Your task to perform on an android device: Open the calendar and show me this week's events? Image 0: 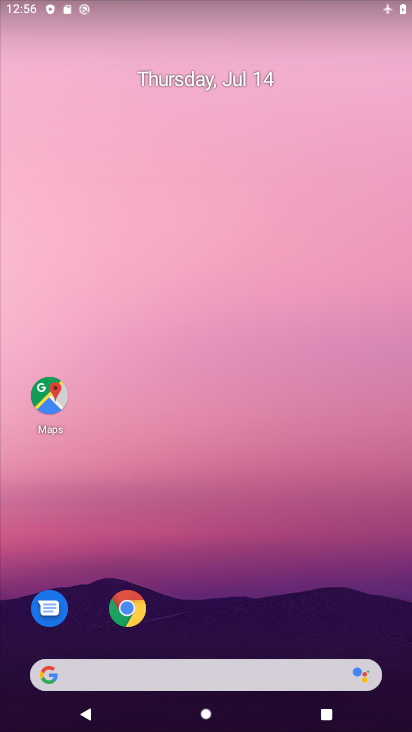
Step 0: drag from (196, 611) to (216, 313)
Your task to perform on an android device: Open the calendar and show me this week's events? Image 1: 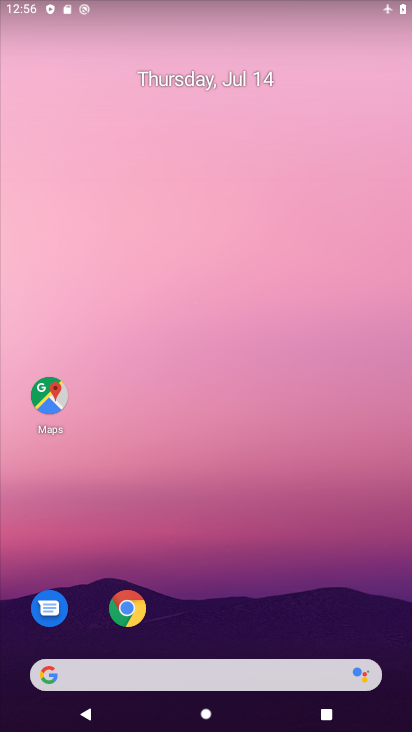
Step 1: drag from (230, 653) to (269, 184)
Your task to perform on an android device: Open the calendar and show me this week's events? Image 2: 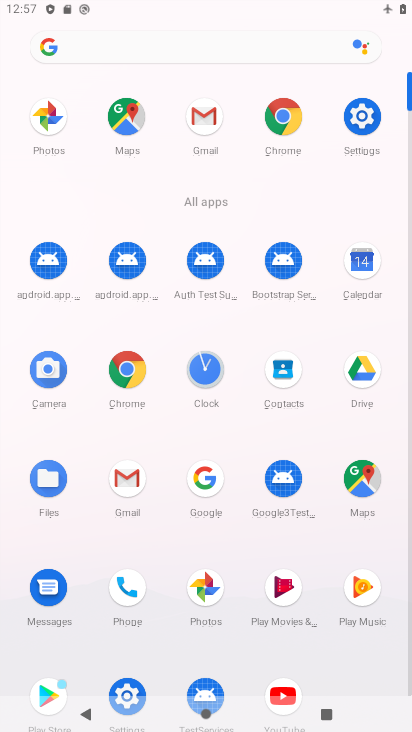
Step 2: click (362, 259)
Your task to perform on an android device: Open the calendar and show me this week's events? Image 3: 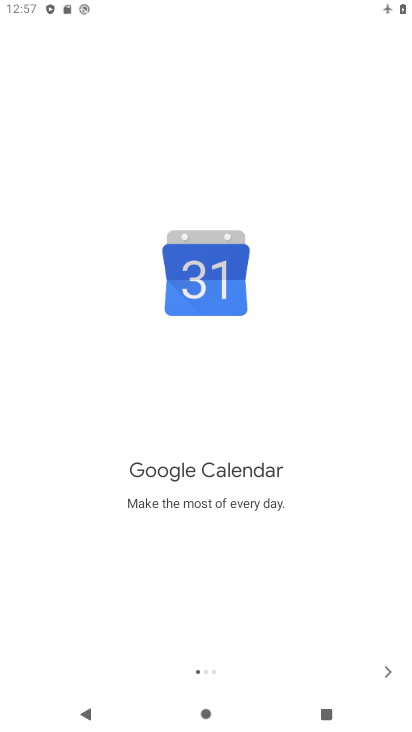
Step 3: click (376, 678)
Your task to perform on an android device: Open the calendar and show me this week's events? Image 4: 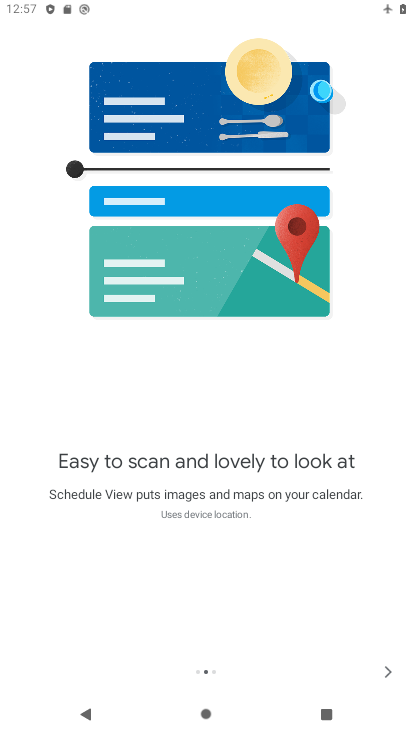
Step 4: click (377, 676)
Your task to perform on an android device: Open the calendar and show me this week's events? Image 5: 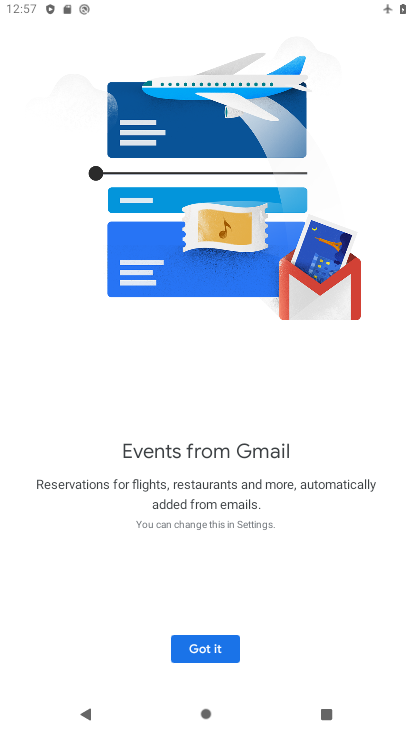
Step 5: click (216, 656)
Your task to perform on an android device: Open the calendar and show me this week's events? Image 6: 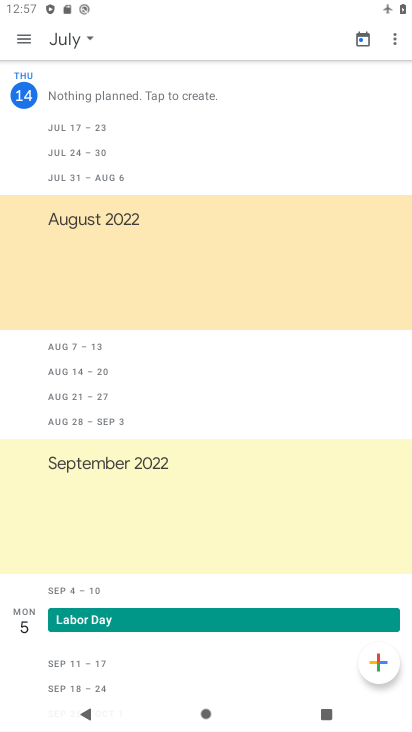
Step 6: click (70, 42)
Your task to perform on an android device: Open the calendar and show me this week's events? Image 7: 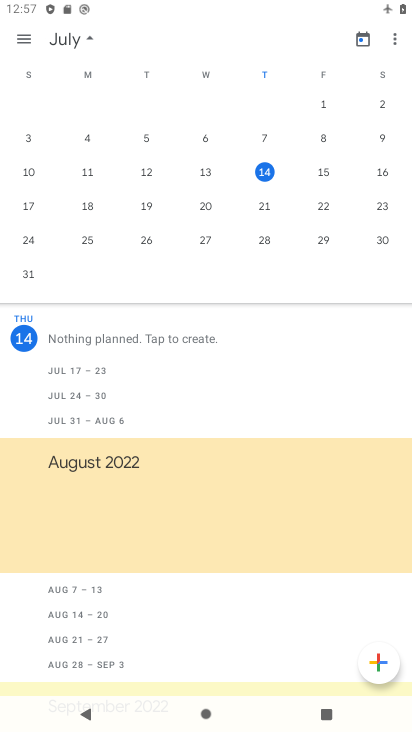
Step 7: click (315, 168)
Your task to perform on an android device: Open the calendar and show me this week's events? Image 8: 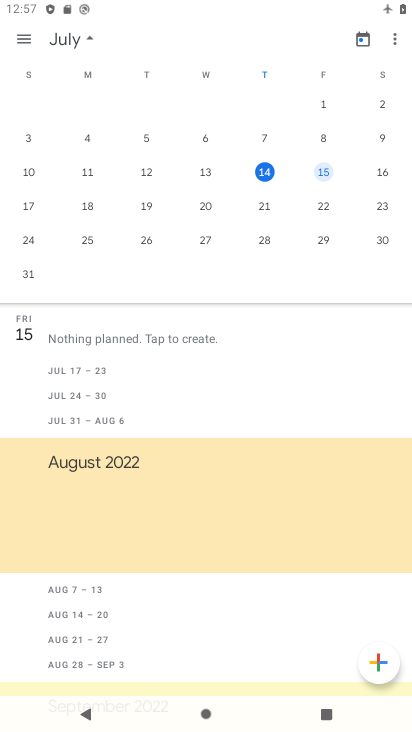
Step 8: task complete